Your task to perform on an android device: add a contact Image 0: 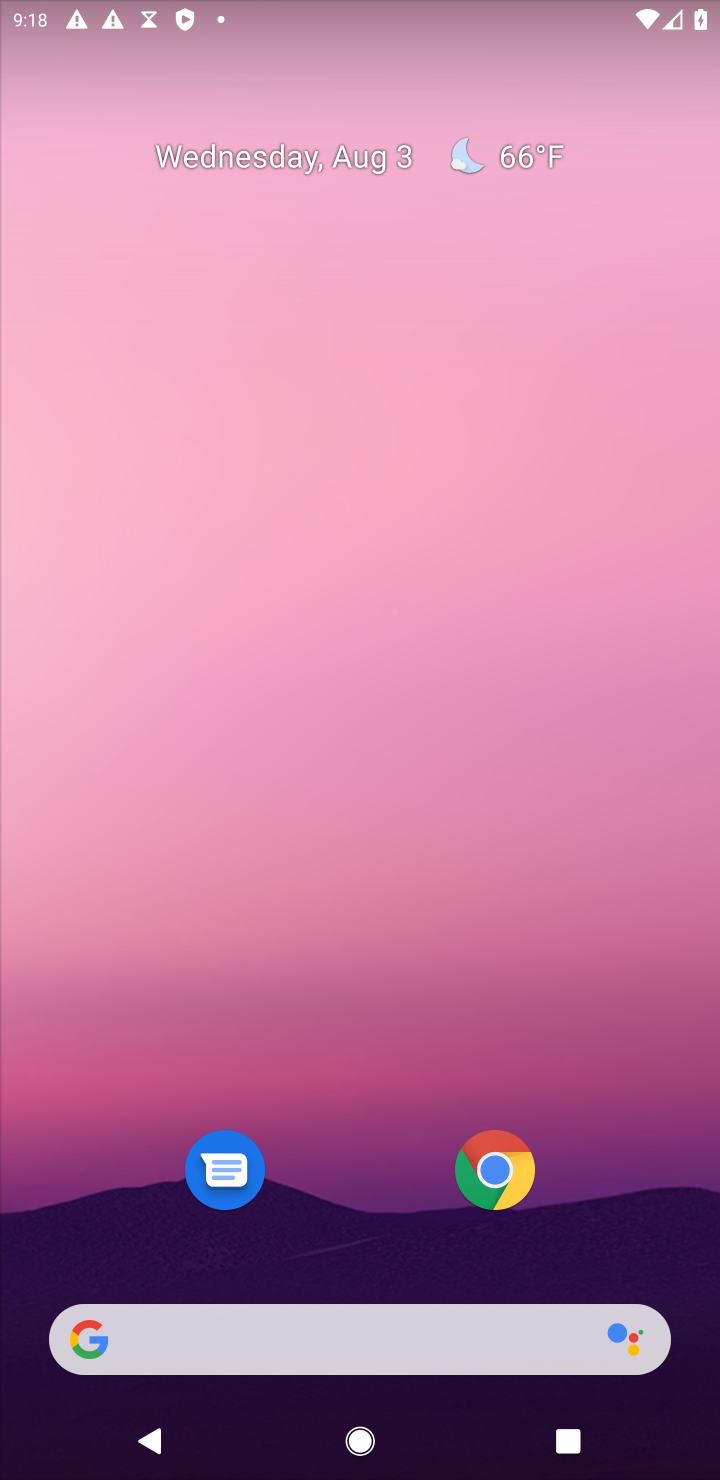
Step 0: drag from (610, 1247) to (389, 58)
Your task to perform on an android device: add a contact Image 1: 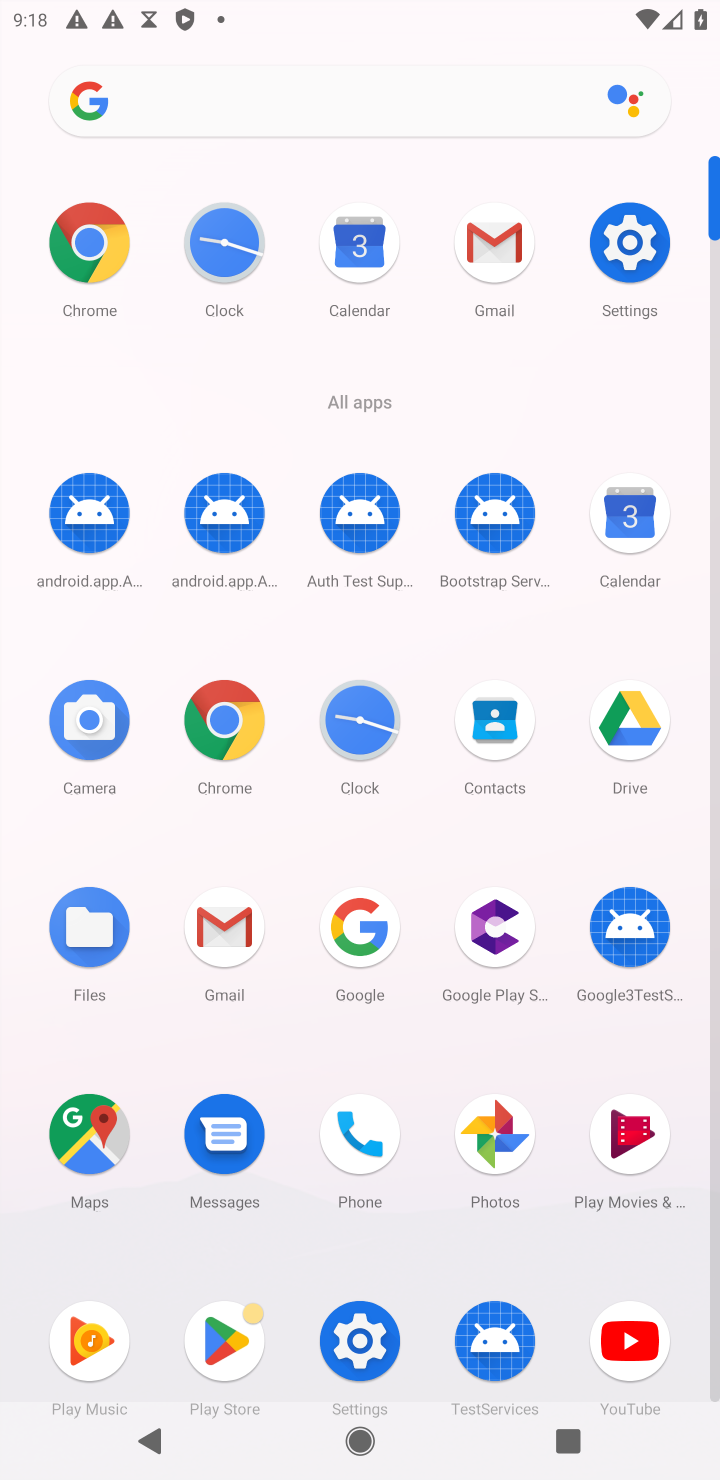
Step 1: click (491, 733)
Your task to perform on an android device: add a contact Image 2: 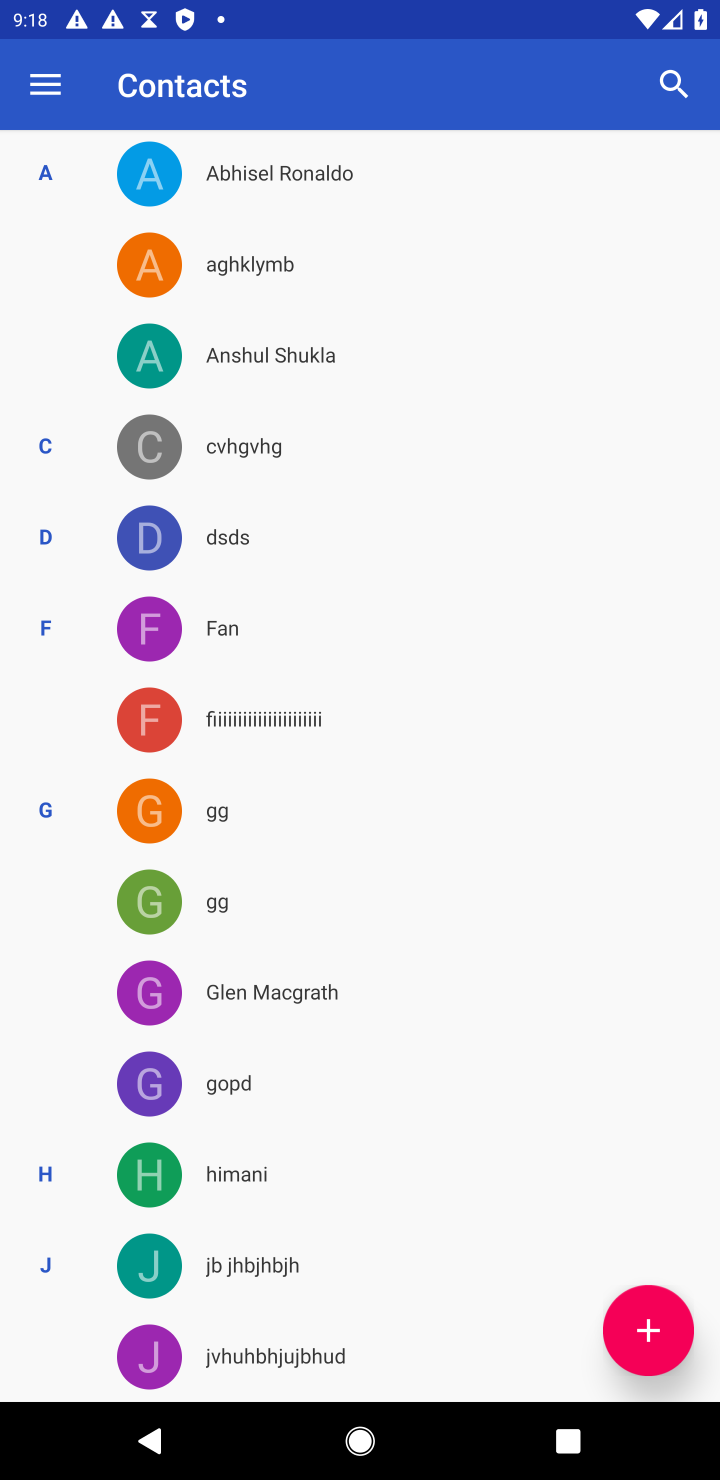
Step 2: click (653, 1324)
Your task to perform on an android device: add a contact Image 3: 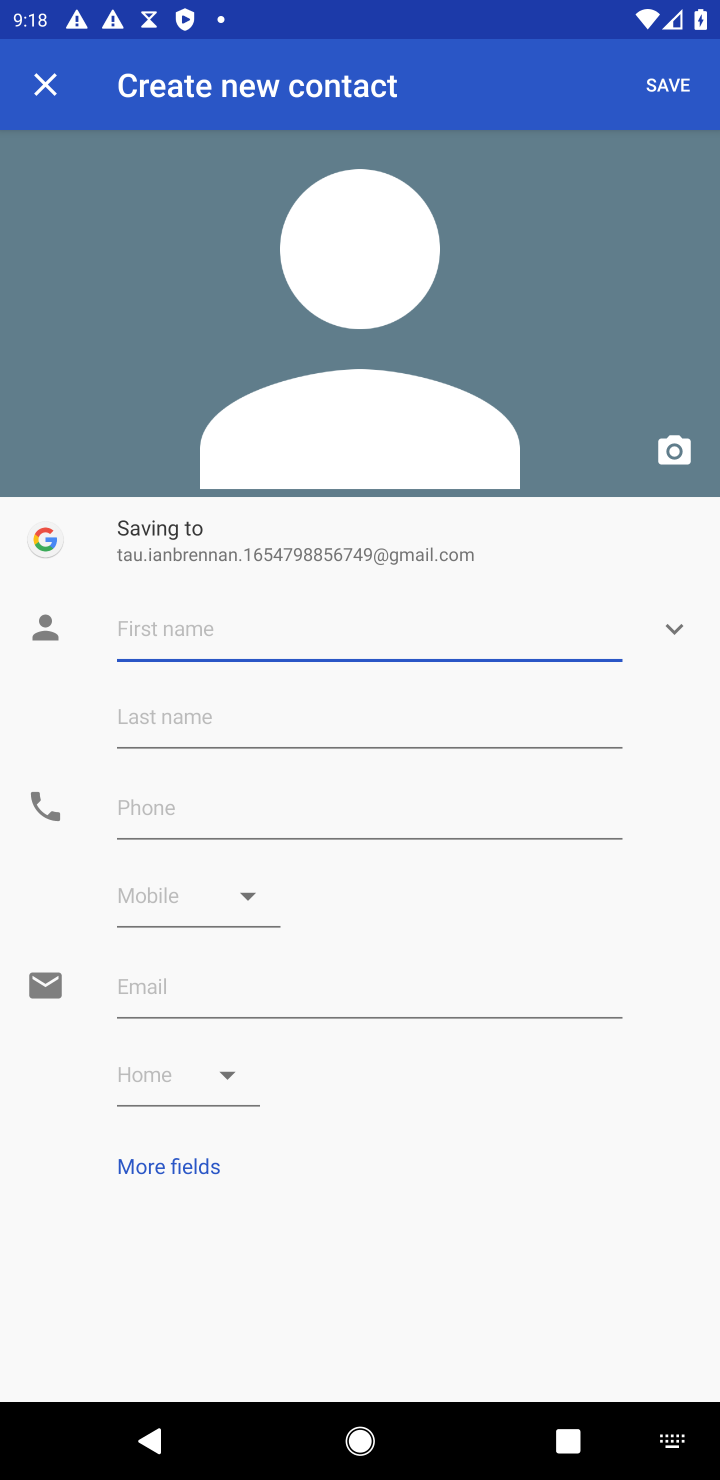
Step 3: click (352, 644)
Your task to perform on an android device: add a contact Image 4: 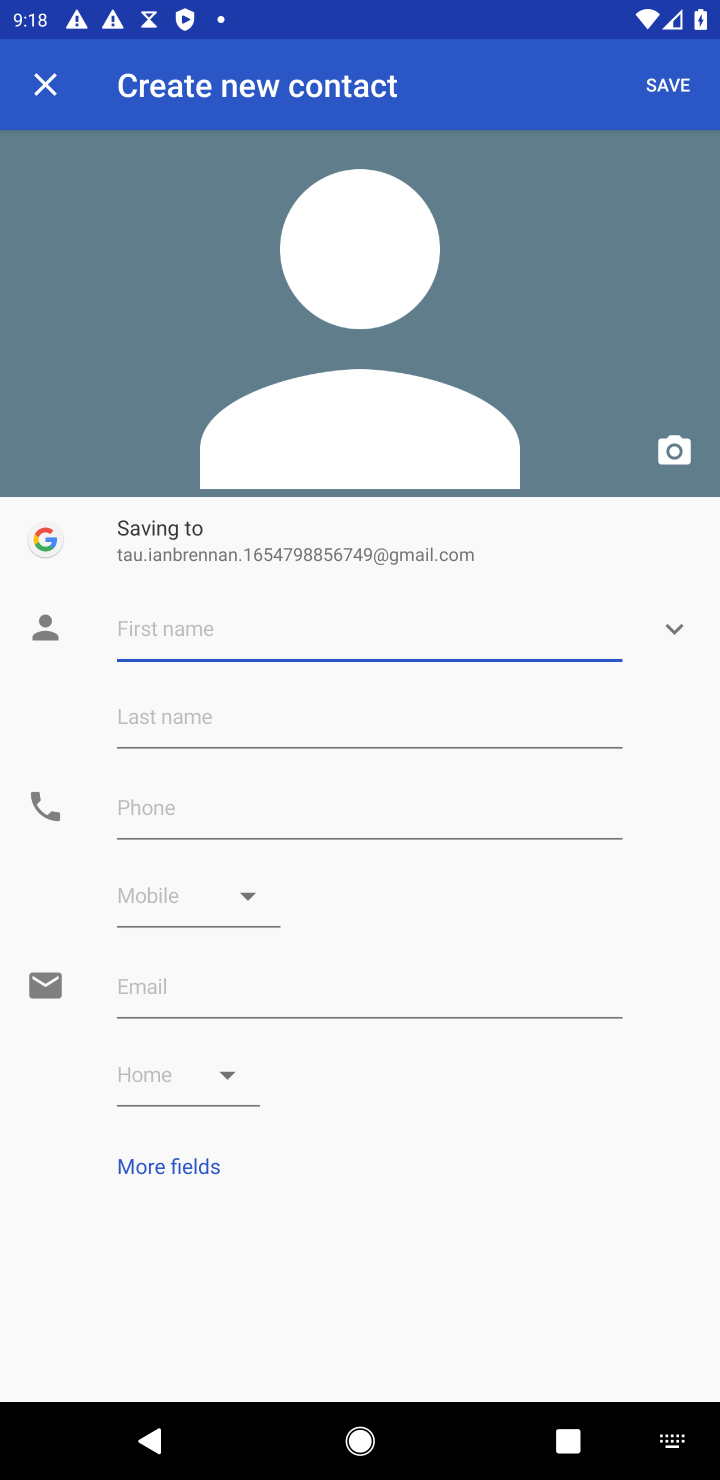
Step 4: type "vhjbvj"
Your task to perform on an android device: add a contact Image 5: 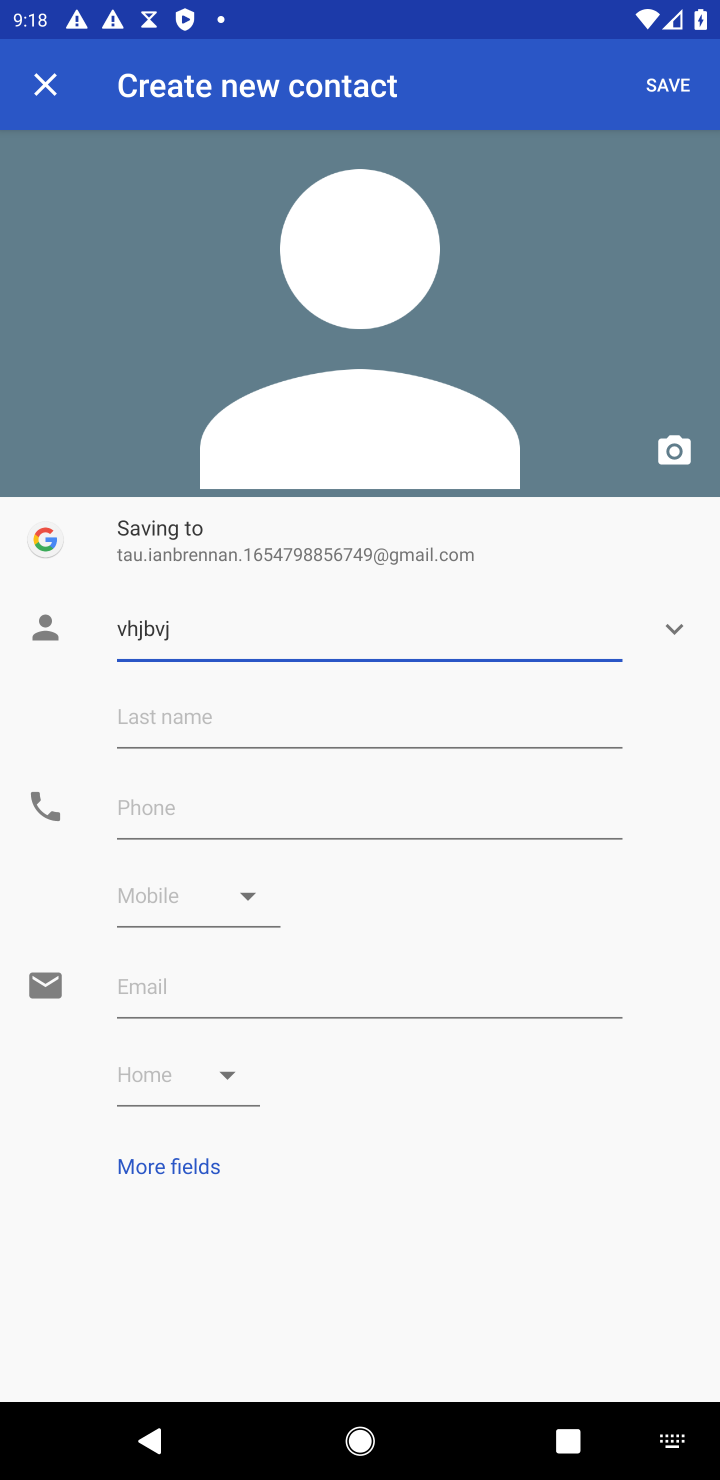
Step 5: click (156, 800)
Your task to perform on an android device: add a contact Image 6: 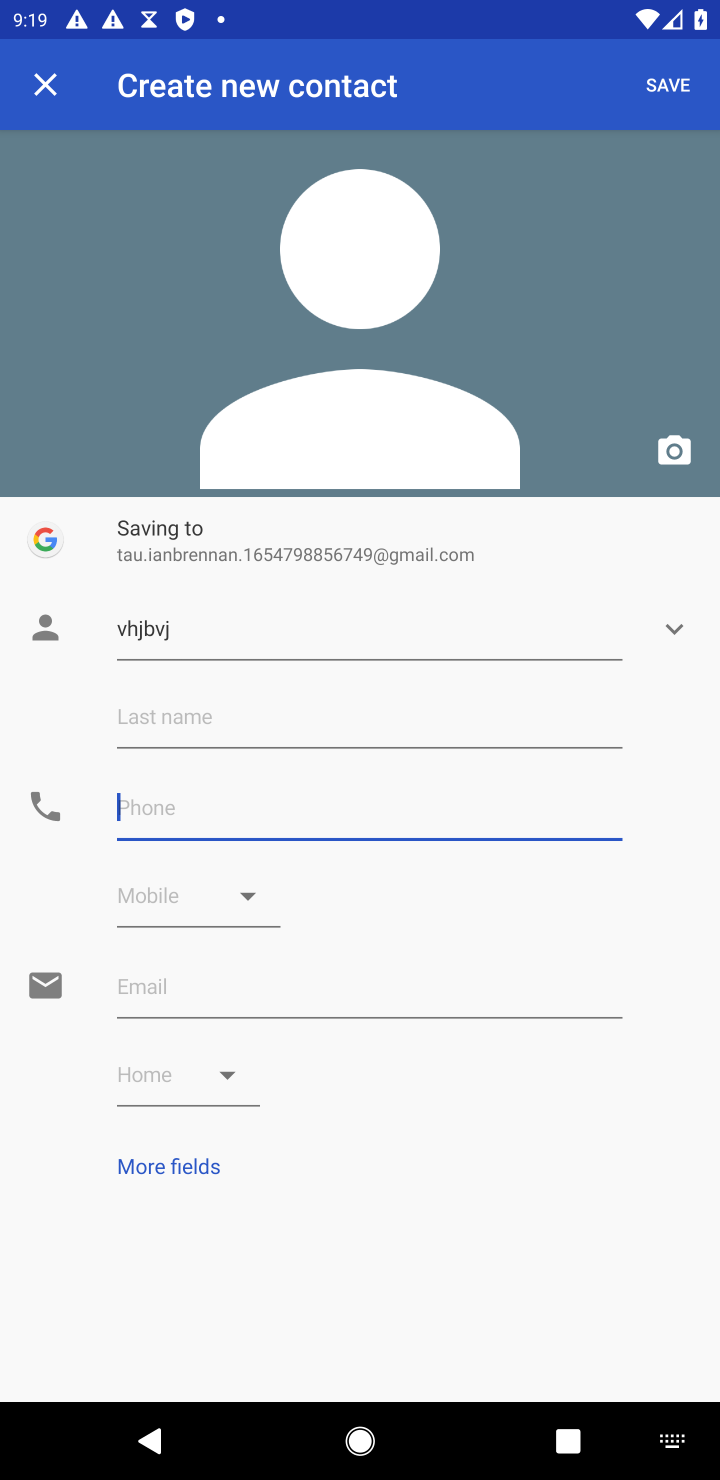
Step 6: type "9898"
Your task to perform on an android device: add a contact Image 7: 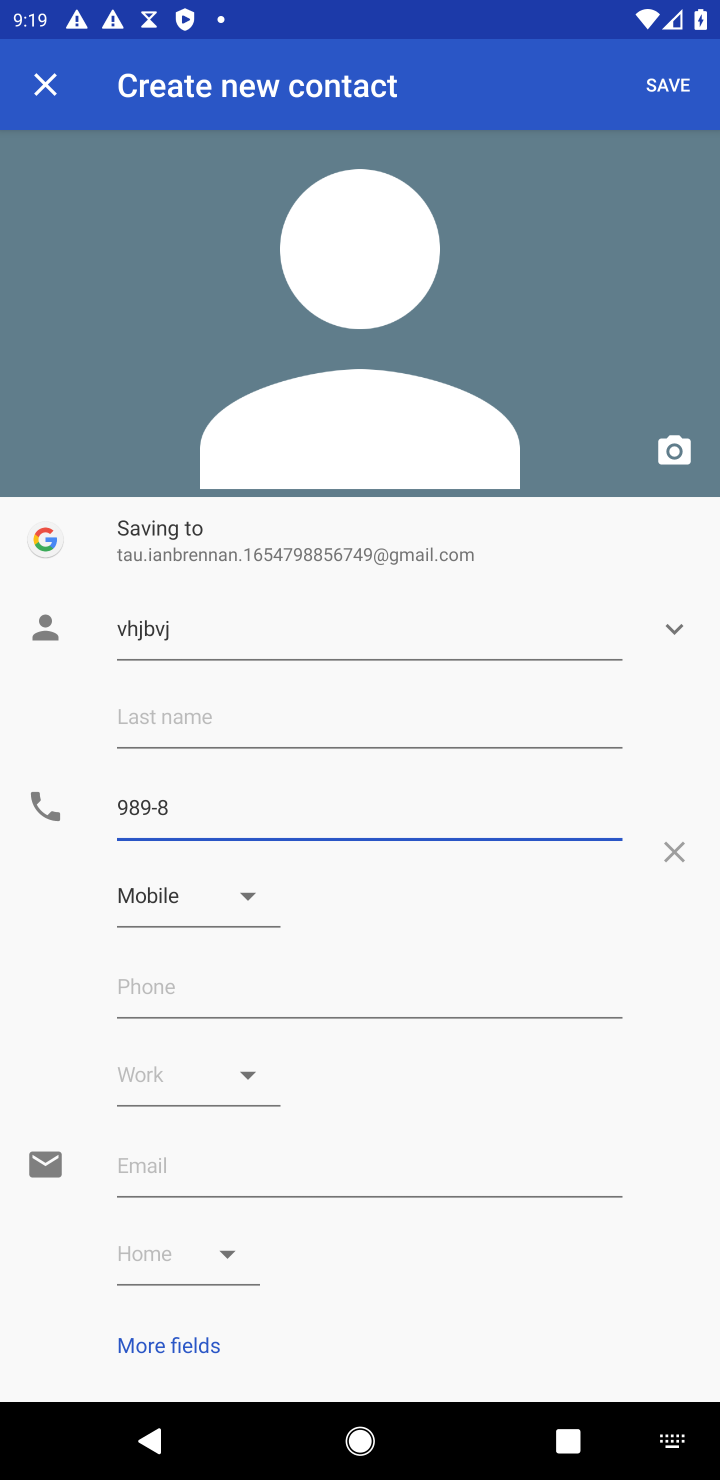
Step 7: click (675, 101)
Your task to perform on an android device: add a contact Image 8: 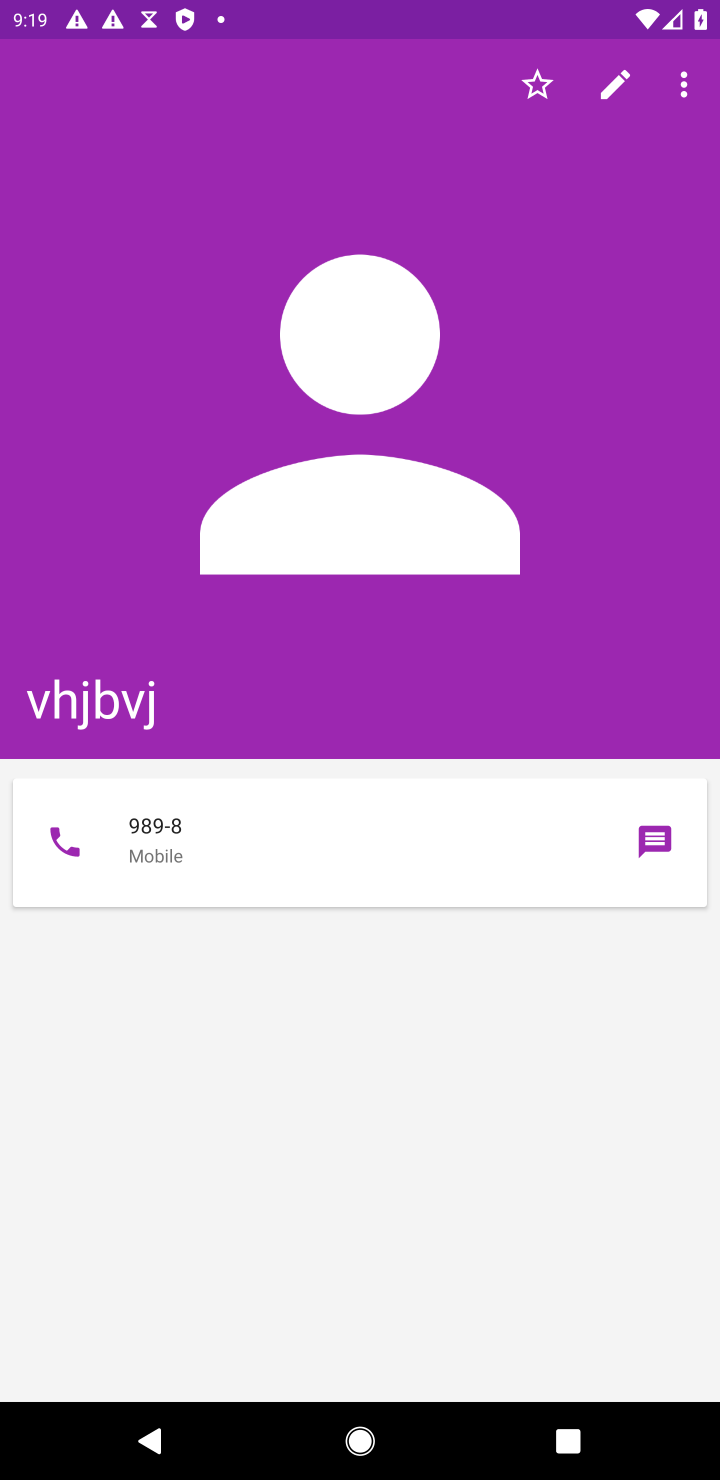
Step 8: task complete